Your task to perform on an android device: turn on priority inbox in the gmail app Image 0: 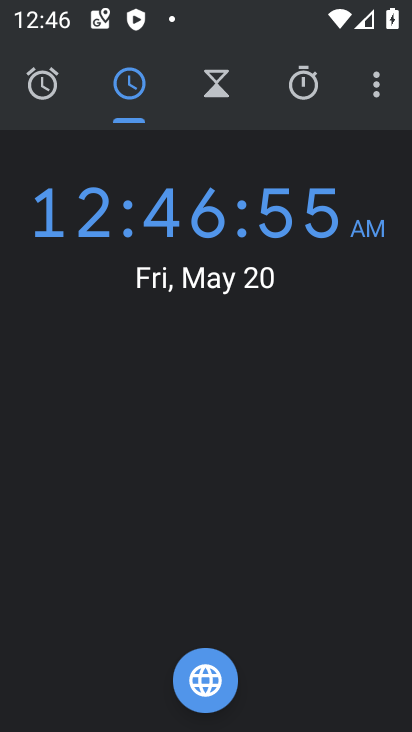
Step 0: press home button
Your task to perform on an android device: turn on priority inbox in the gmail app Image 1: 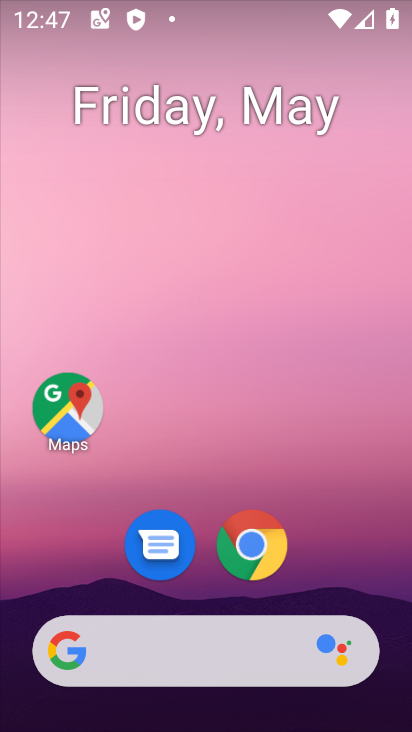
Step 1: drag from (333, 500) to (400, 4)
Your task to perform on an android device: turn on priority inbox in the gmail app Image 2: 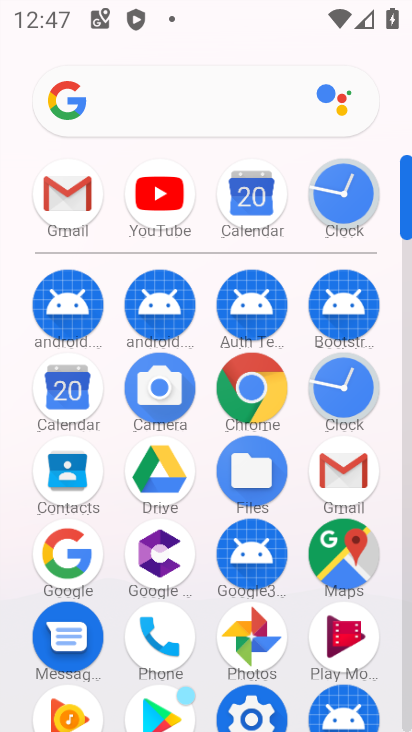
Step 2: click (94, 193)
Your task to perform on an android device: turn on priority inbox in the gmail app Image 3: 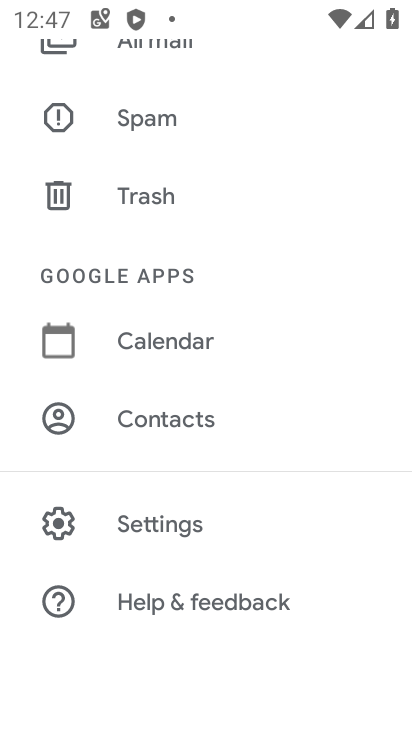
Step 3: drag from (185, 183) to (117, 481)
Your task to perform on an android device: turn on priority inbox in the gmail app Image 4: 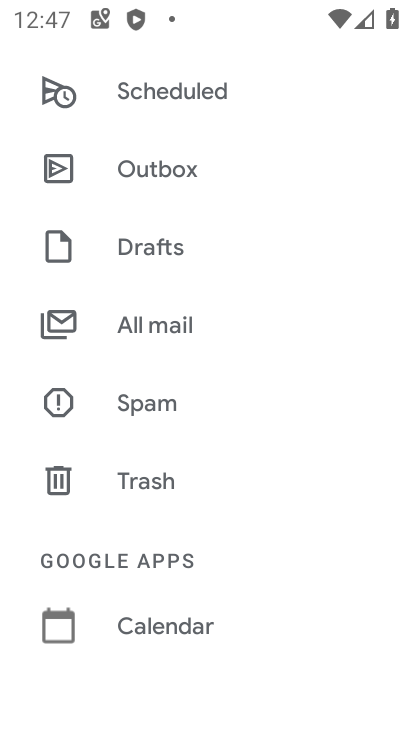
Step 4: drag from (255, 205) to (261, 447)
Your task to perform on an android device: turn on priority inbox in the gmail app Image 5: 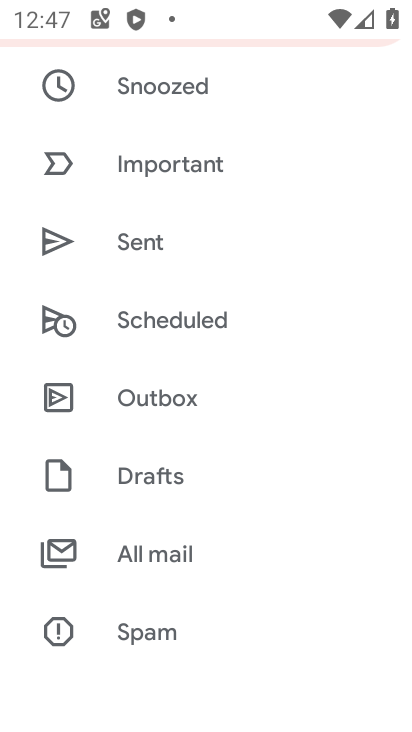
Step 5: drag from (268, 223) to (233, 423)
Your task to perform on an android device: turn on priority inbox in the gmail app Image 6: 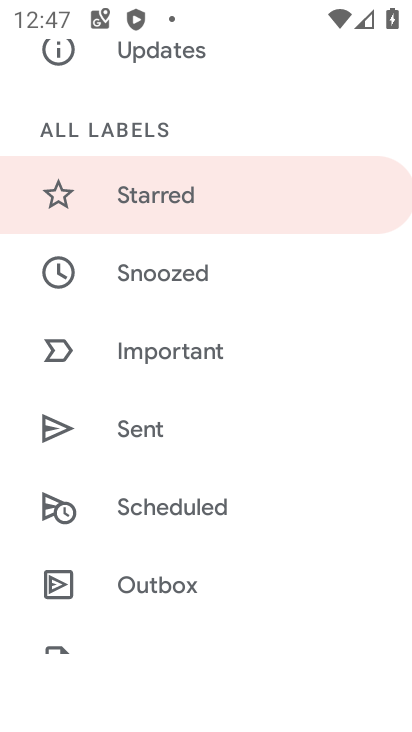
Step 6: drag from (248, 199) to (217, 449)
Your task to perform on an android device: turn on priority inbox in the gmail app Image 7: 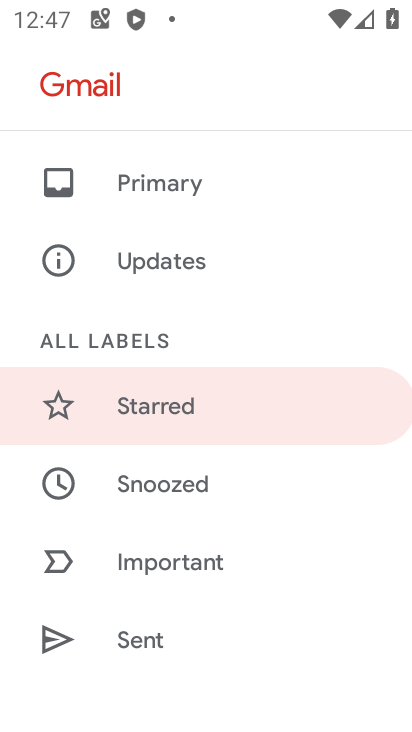
Step 7: click (228, 203)
Your task to perform on an android device: turn on priority inbox in the gmail app Image 8: 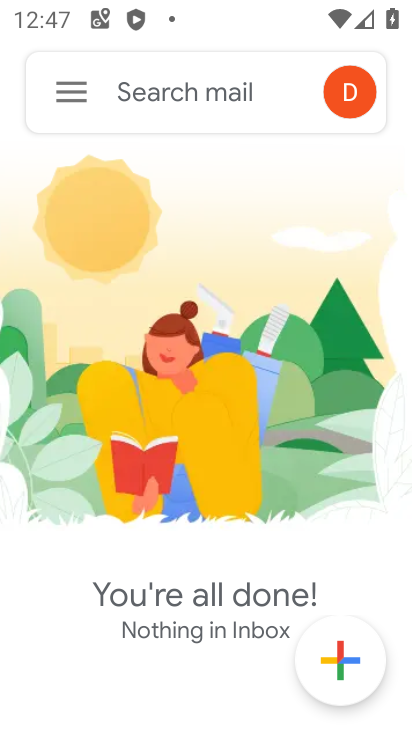
Step 8: task complete